Your task to perform on an android device: Open Reddit.com Image 0: 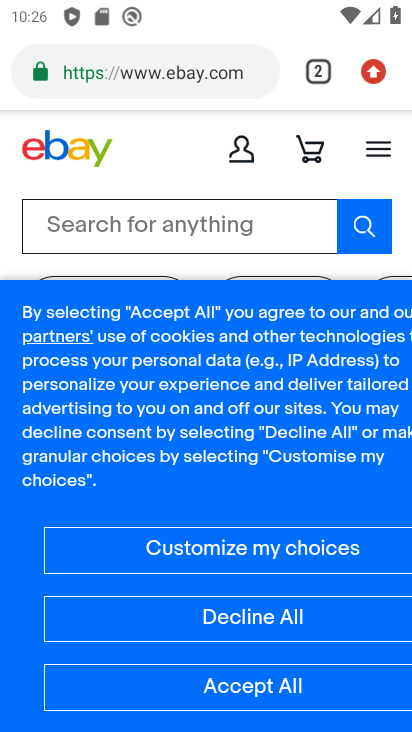
Step 0: click (179, 69)
Your task to perform on an android device: Open Reddit.com Image 1: 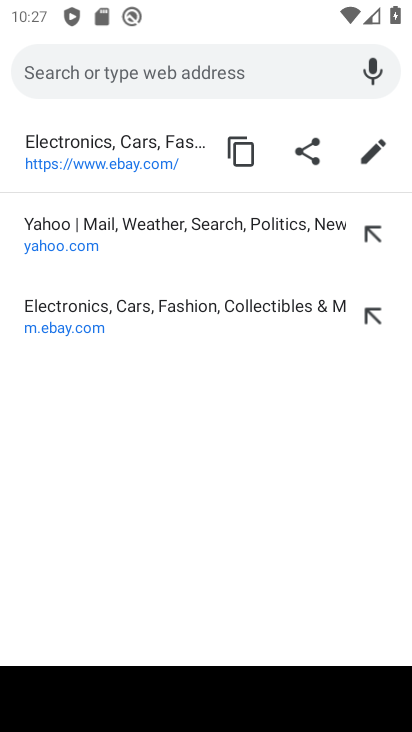
Step 1: type "Reddit.com"
Your task to perform on an android device: Open Reddit.com Image 2: 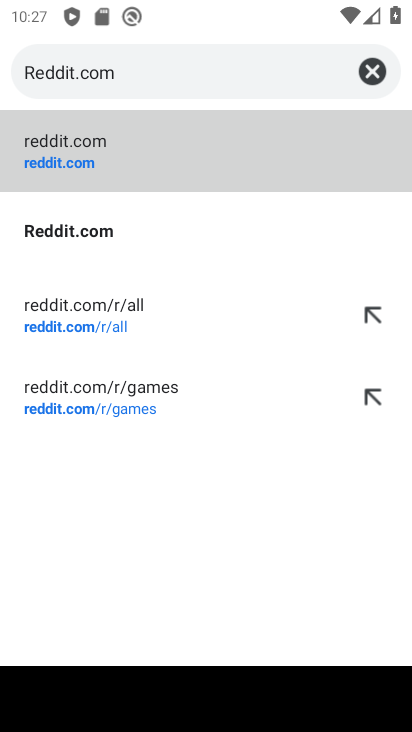
Step 2: click (77, 139)
Your task to perform on an android device: Open Reddit.com Image 3: 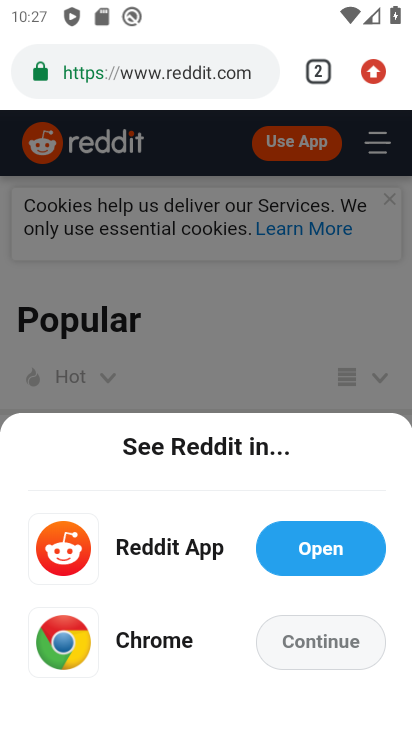
Step 3: task complete